Your task to perform on an android device: Search for sushi restaurants on Maps Image 0: 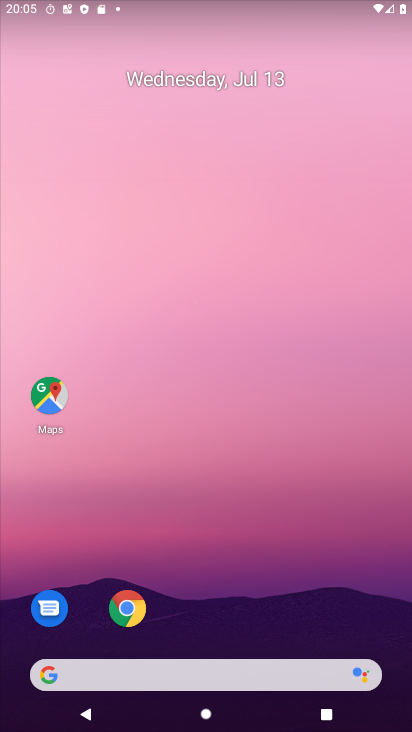
Step 0: click (54, 394)
Your task to perform on an android device: Search for sushi restaurants on Maps Image 1: 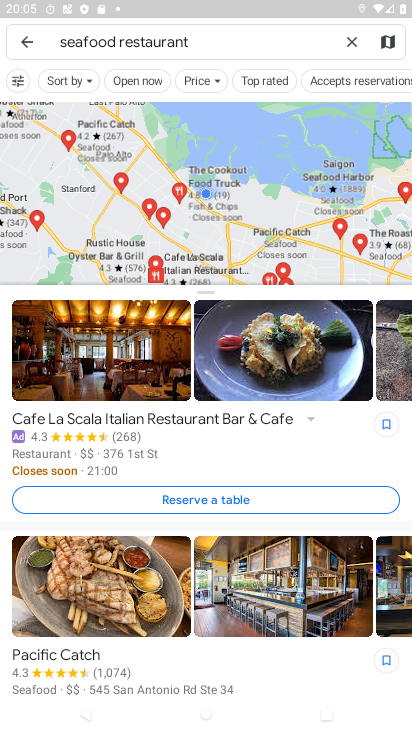
Step 1: click (350, 41)
Your task to perform on an android device: Search for sushi restaurants on Maps Image 2: 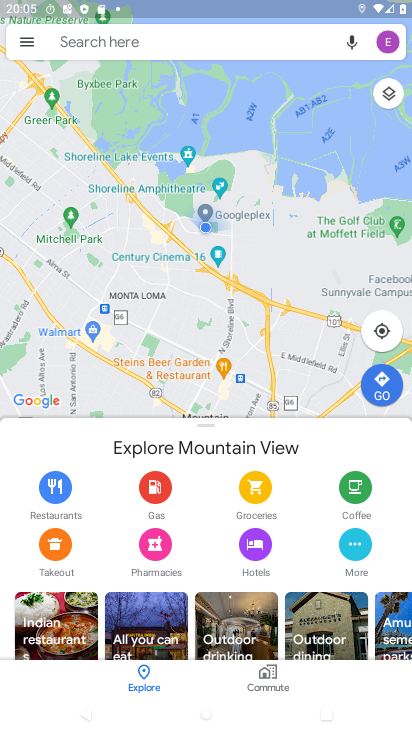
Step 2: click (219, 50)
Your task to perform on an android device: Search for sushi restaurants on Maps Image 3: 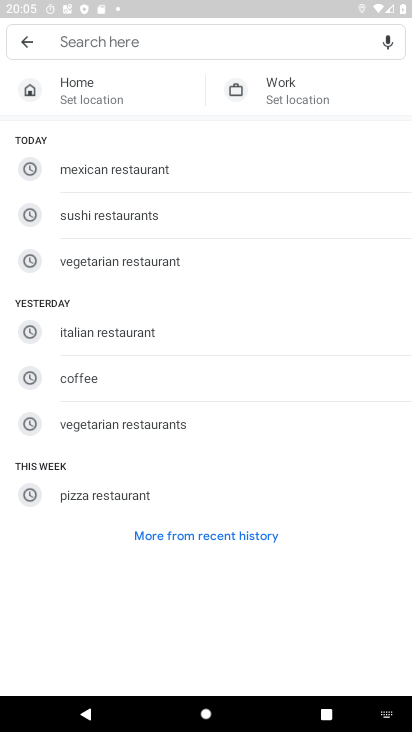
Step 3: type "sushi restaurants"
Your task to perform on an android device: Search for sushi restaurants on Maps Image 4: 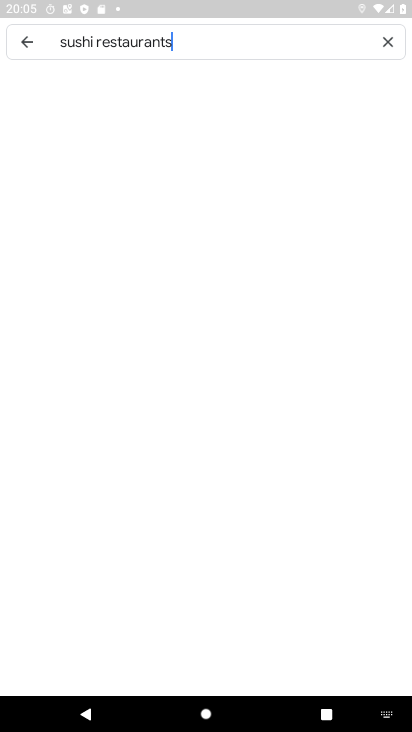
Step 4: type ""
Your task to perform on an android device: Search for sushi restaurants on Maps Image 5: 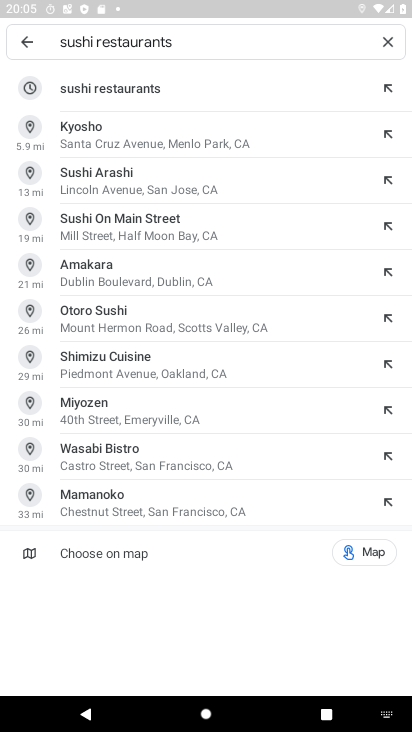
Step 5: click (86, 86)
Your task to perform on an android device: Search for sushi restaurants on Maps Image 6: 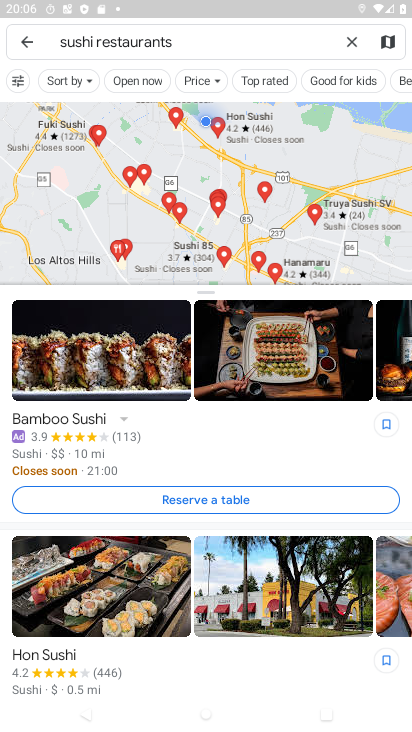
Step 6: task complete